Your task to perform on an android device: Do I have any events today? Image 0: 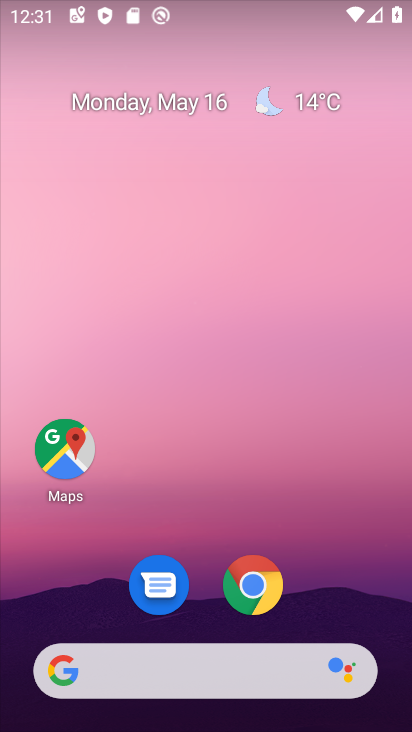
Step 0: drag from (189, 512) to (201, 62)
Your task to perform on an android device: Do I have any events today? Image 1: 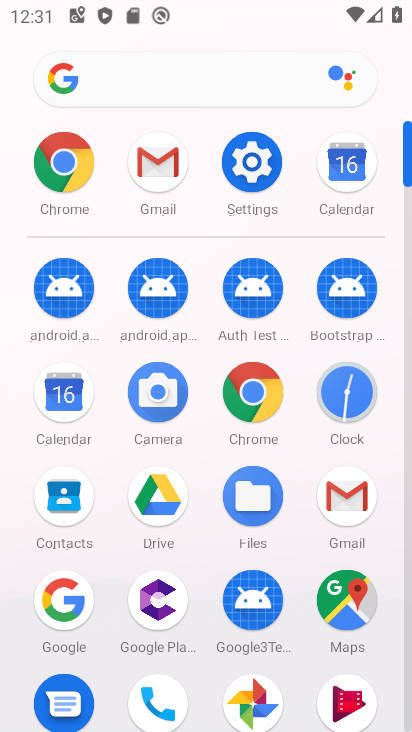
Step 1: click (347, 169)
Your task to perform on an android device: Do I have any events today? Image 2: 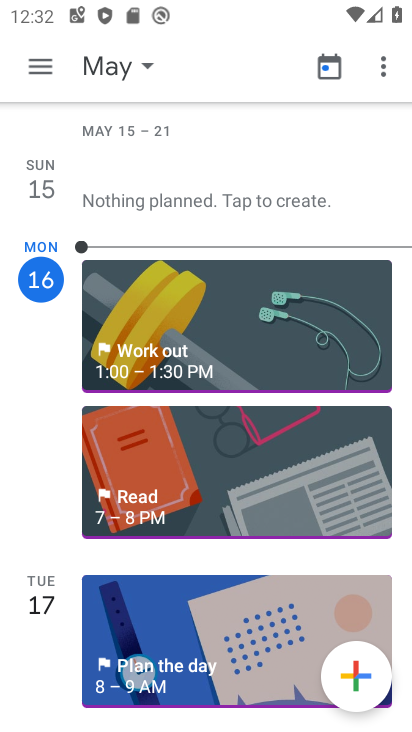
Step 2: task complete